Your task to perform on an android device: Find coffee shops on Maps Image 0: 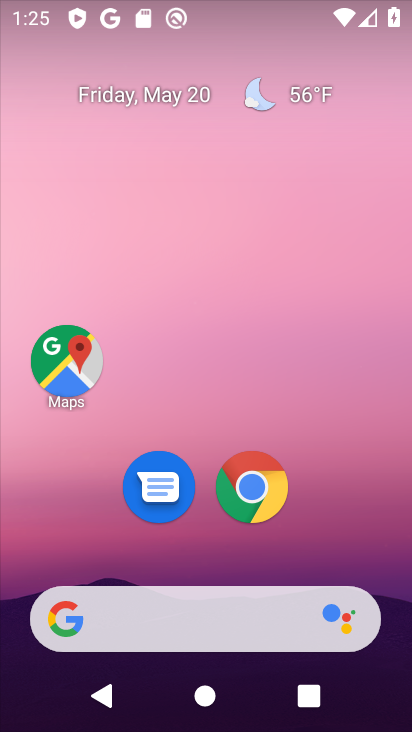
Step 0: drag from (205, 504) to (236, 17)
Your task to perform on an android device: Find coffee shops on Maps Image 1: 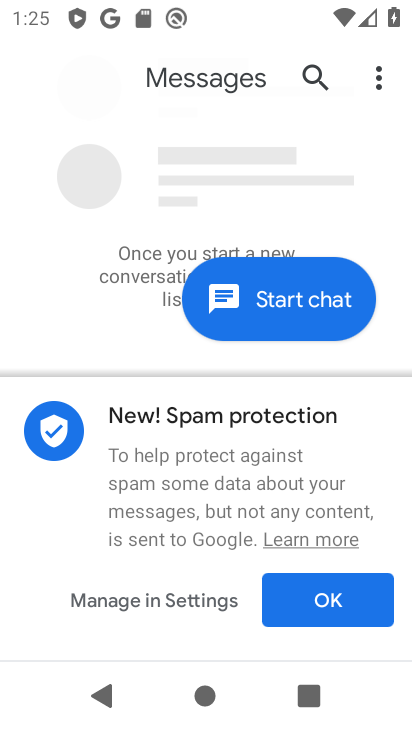
Step 1: press home button
Your task to perform on an android device: Find coffee shops on Maps Image 2: 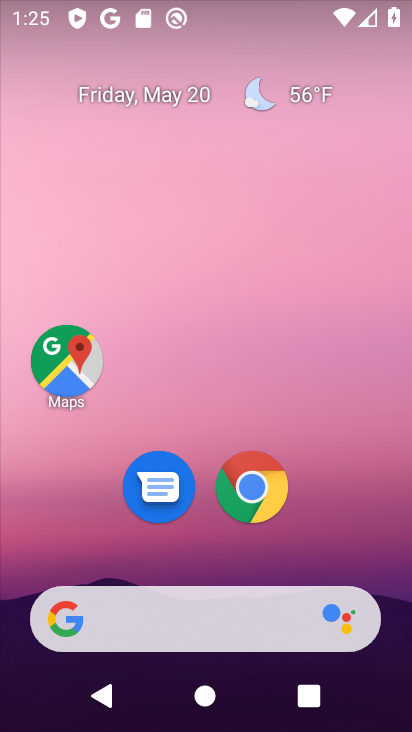
Step 2: click (57, 359)
Your task to perform on an android device: Find coffee shops on Maps Image 3: 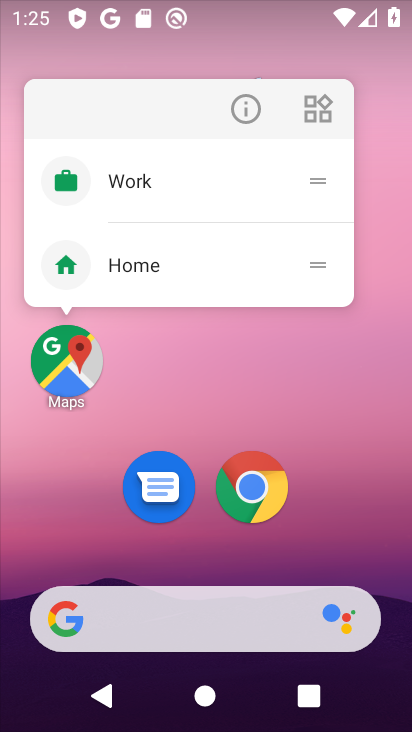
Step 3: click (73, 352)
Your task to perform on an android device: Find coffee shops on Maps Image 4: 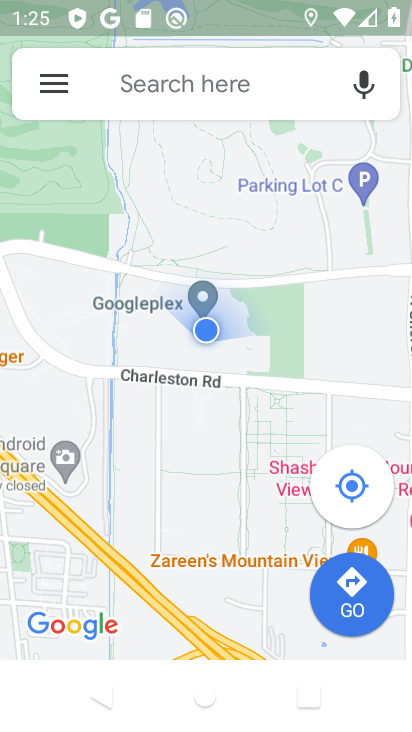
Step 4: click (150, 76)
Your task to perform on an android device: Find coffee shops on Maps Image 5: 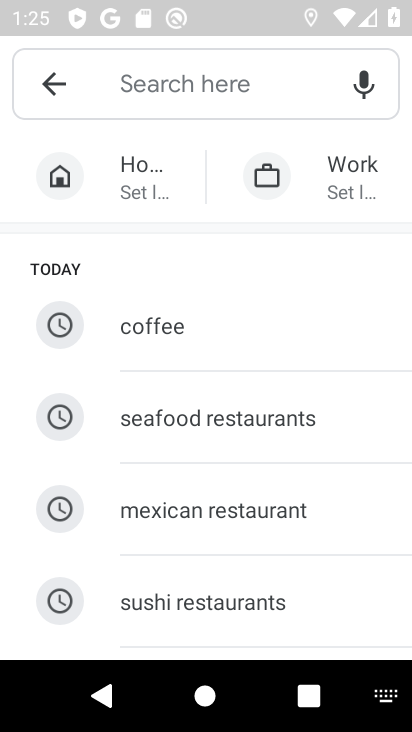
Step 5: click (201, 340)
Your task to perform on an android device: Find coffee shops on Maps Image 6: 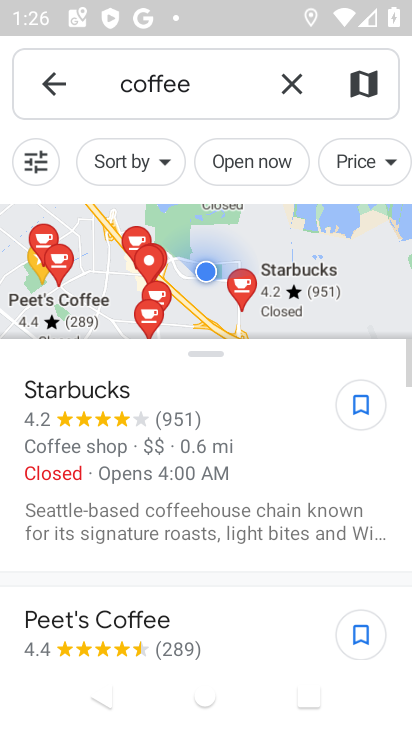
Step 6: task complete